Your task to perform on an android device: Open Yahoo.com Image 0: 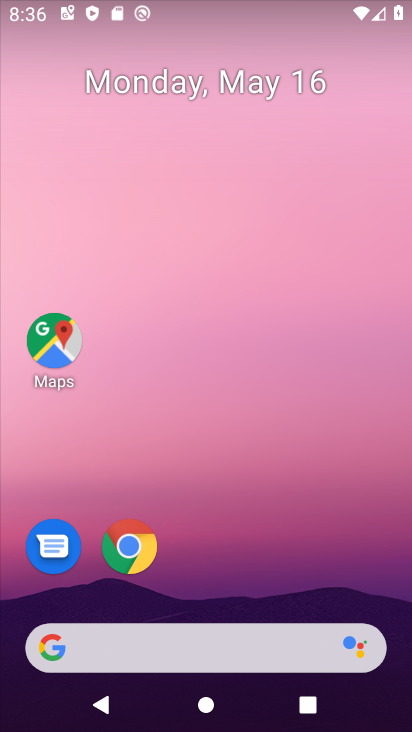
Step 0: drag from (255, 672) to (260, 142)
Your task to perform on an android device: Open Yahoo.com Image 1: 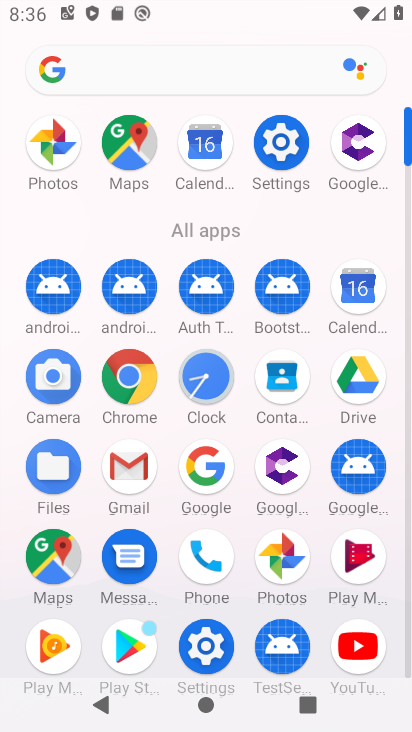
Step 1: click (123, 381)
Your task to perform on an android device: Open Yahoo.com Image 2: 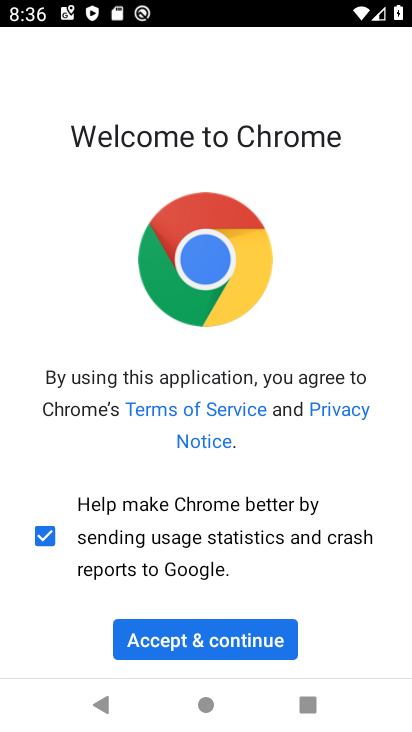
Step 2: click (171, 629)
Your task to perform on an android device: Open Yahoo.com Image 3: 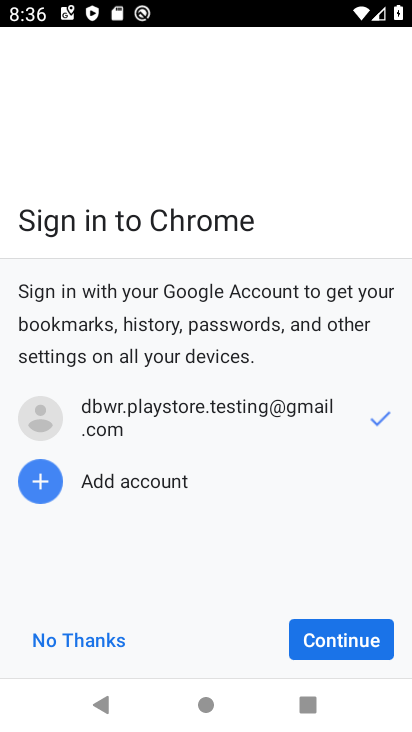
Step 3: click (334, 647)
Your task to perform on an android device: Open Yahoo.com Image 4: 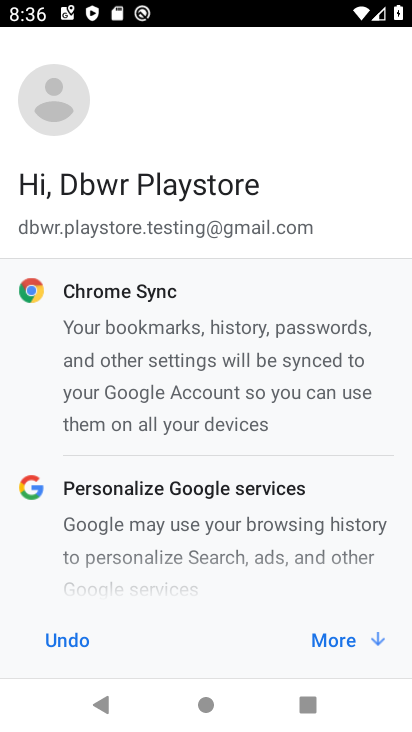
Step 4: click (373, 633)
Your task to perform on an android device: Open Yahoo.com Image 5: 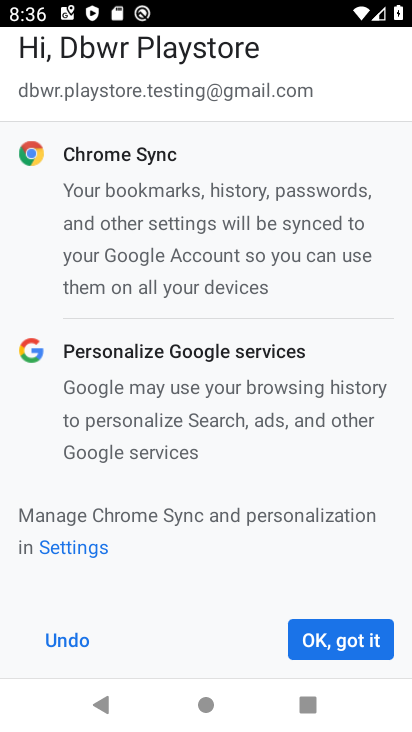
Step 5: click (365, 626)
Your task to perform on an android device: Open Yahoo.com Image 6: 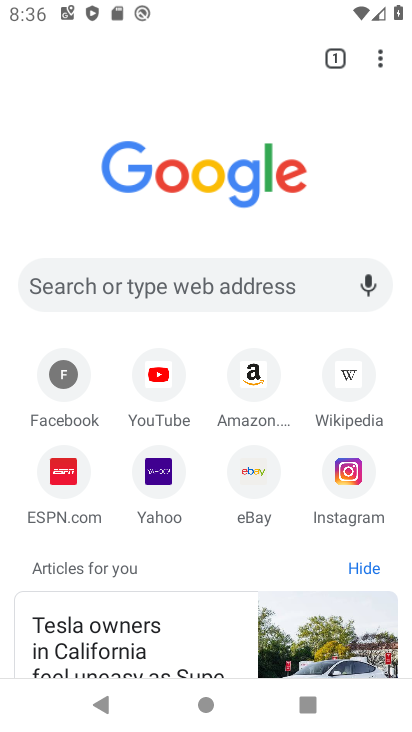
Step 6: click (156, 498)
Your task to perform on an android device: Open Yahoo.com Image 7: 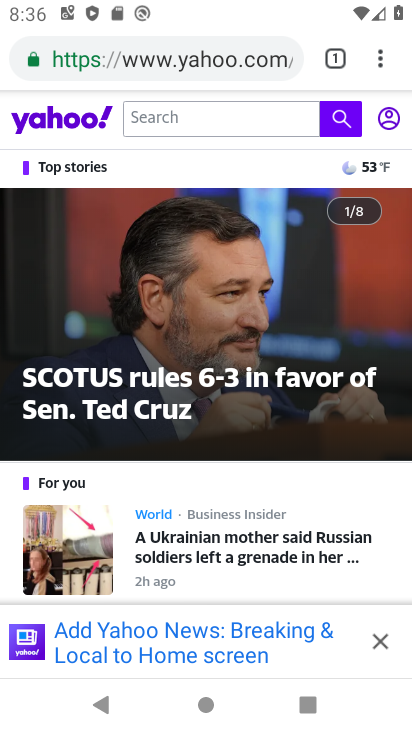
Step 7: task complete